Your task to perform on an android device: Go to location settings Image 0: 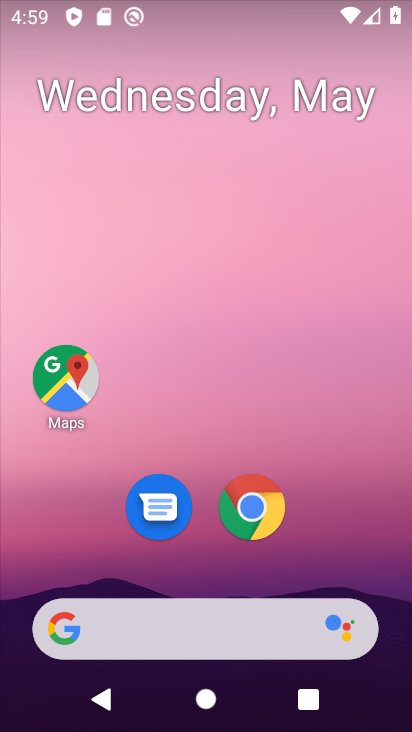
Step 0: drag from (326, 549) to (279, 15)
Your task to perform on an android device: Go to location settings Image 1: 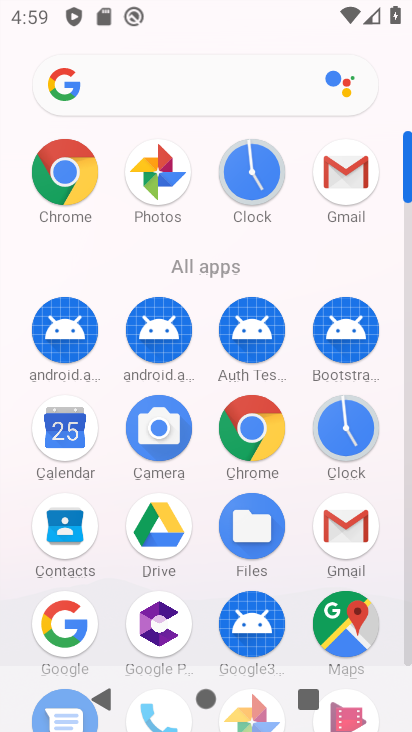
Step 1: drag from (303, 508) to (328, 275)
Your task to perform on an android device: Go to location settings Image 2: 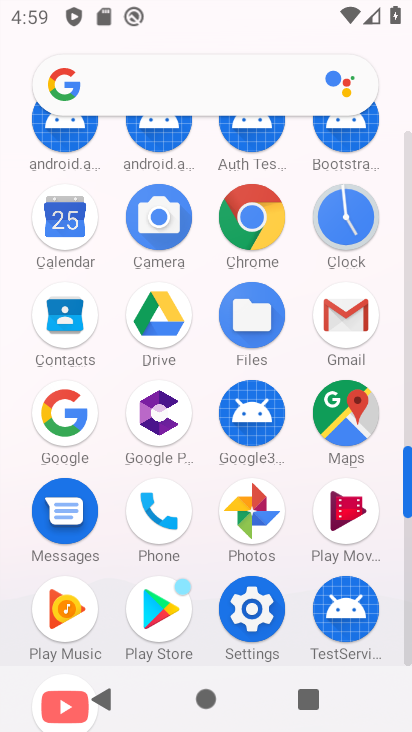
Step 2: click (254, 610)
Your task to perform on an android device: Go to location settings Image 3: 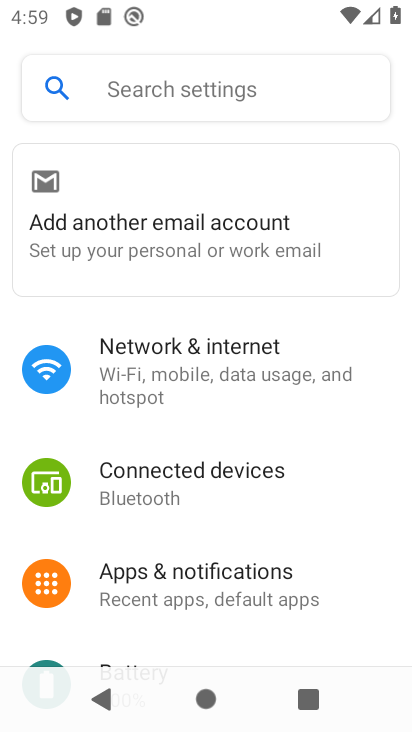
Step 3: drag from (219, 521) to (282, 418)
Your task to perform on an android device: Go to location settings Image 4: 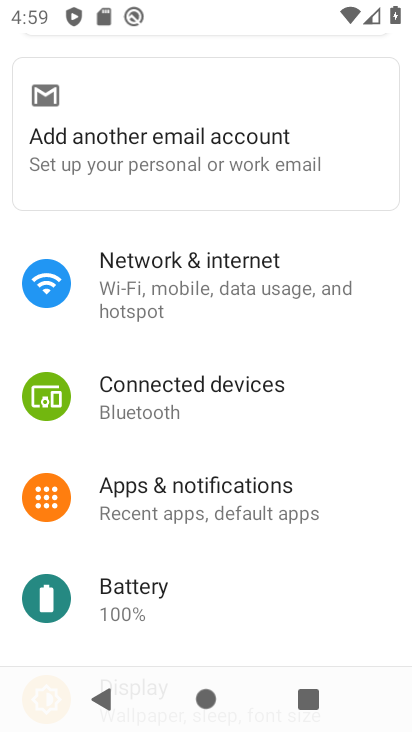
Step 4: drag from (165, 543) to (243, 440)
Your task to perform on an android device: Go to location settings Image 5: 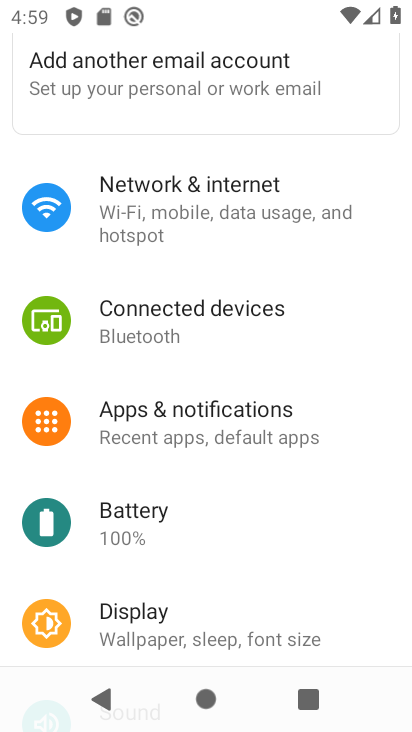
Step 5: drag from (159, 573) to (243, 453)
Your task to perform on an android device: Go to location settings Image 6: 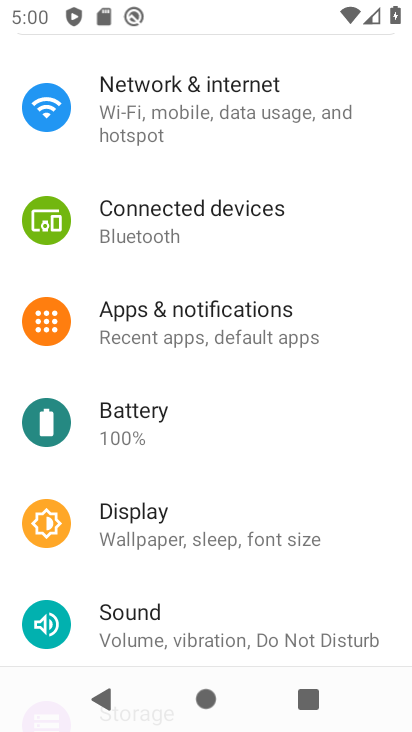
Step 6: drag from (139, 569) to (248, 439)
Your task to perform on an android device: Go to location settings Image 7: 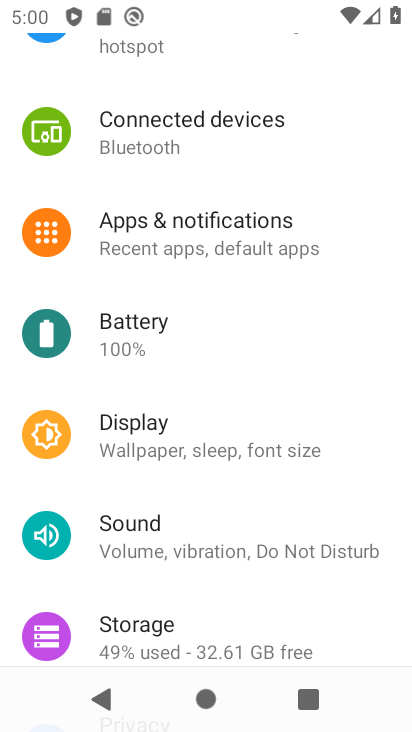
Step 7: drag from (116, 505) to (193, 361)
Your task to perform on an android device: Go to location settings Image 8: 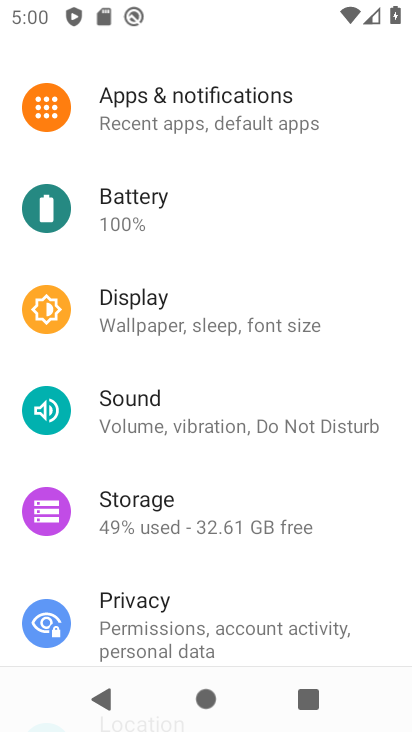
Step 8: drag from (124, 560) to (211, 410)
Your task to perform on an android device: Go to location settings Image 9: 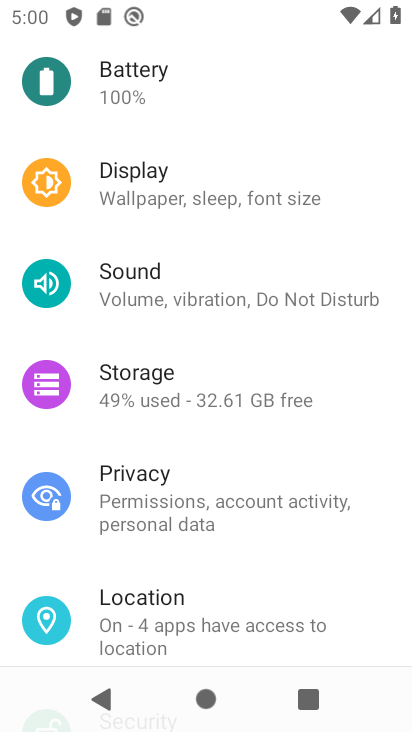
Step 9: drag from (134, 564) to (231, 405)
Your task to perform on an android device: Go to location settings Image 10: 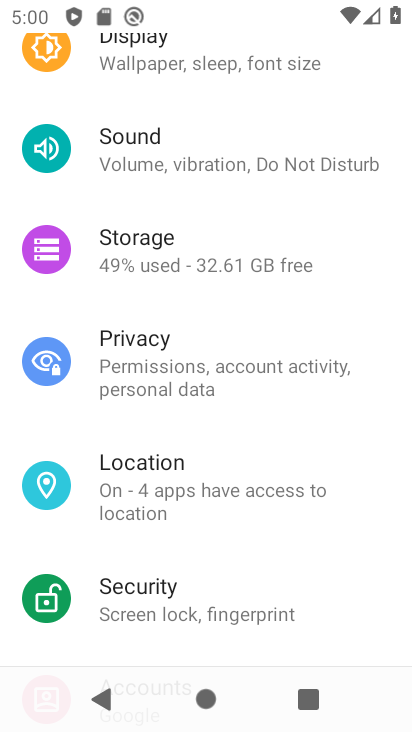
Step 10: click (140, 471)
Your task to perform on an android device: Go to location settings Image 11: 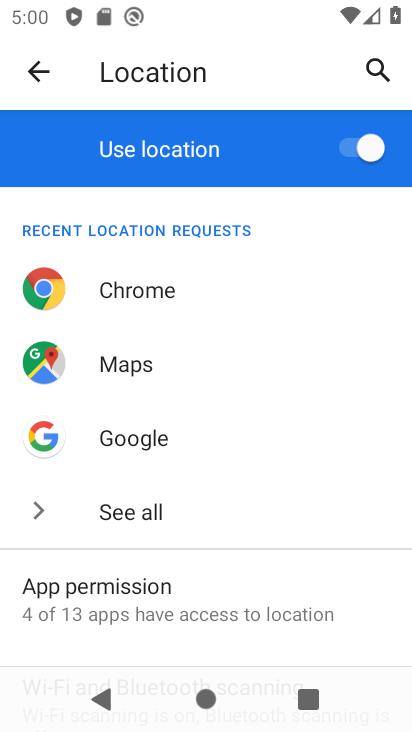
Step 11: task complete